Your task to perform on an android device: find which apps use the phone's location Image 0: 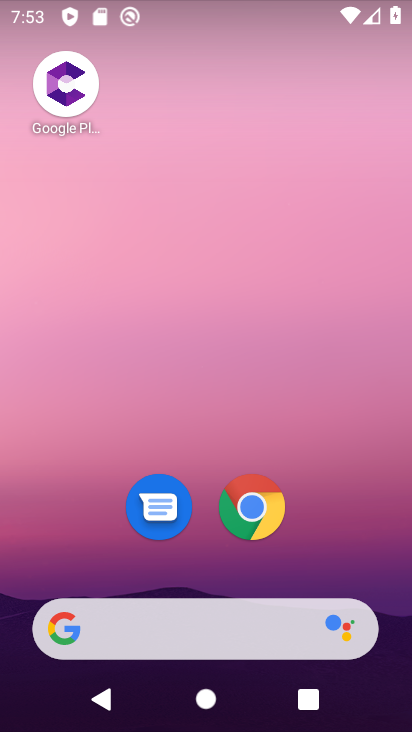
Step 0: drag from (213, 574) to (239, 5)
Your task to perform on an android device: find which apps use the phone's location Image 1: 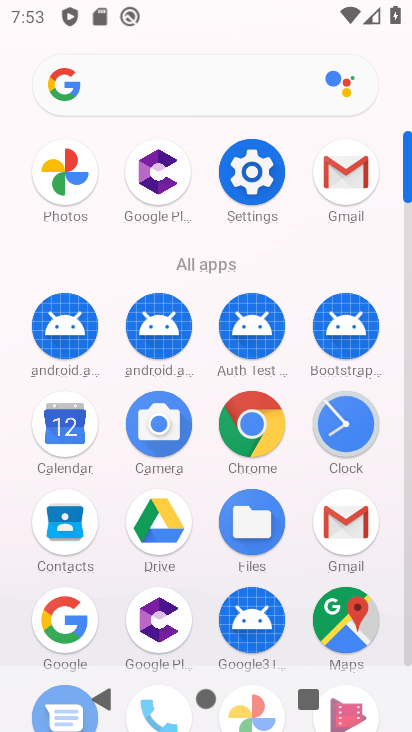
Step 1: click (239, 161)
Your task to perform on an android device: find which apps use the phone's location Image 2: 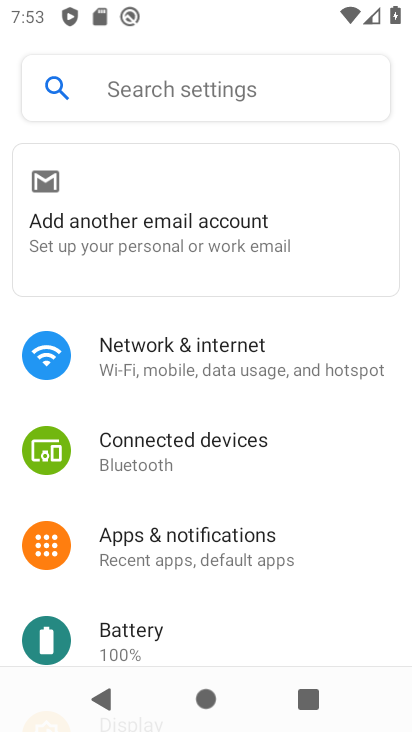
Step 2: drag from (178, 629) to (229, 273)
Your task to perform on an android device: find which apps use the phone's location Image 3: 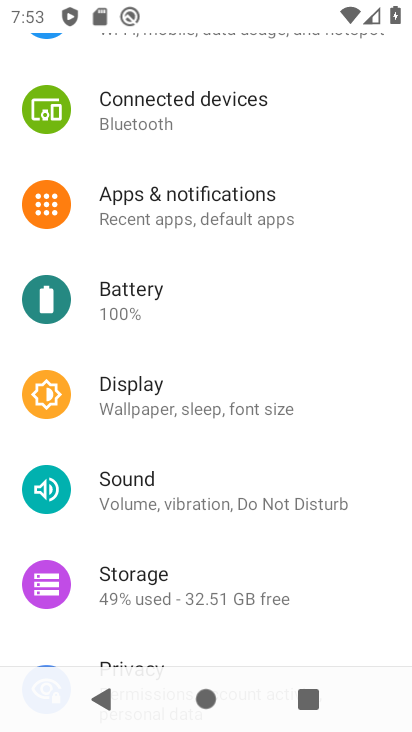
Step 3: drag from (213, 612) to (269, 232)
Your task to perform on an android device: find which apps use the phone's location Image 4: 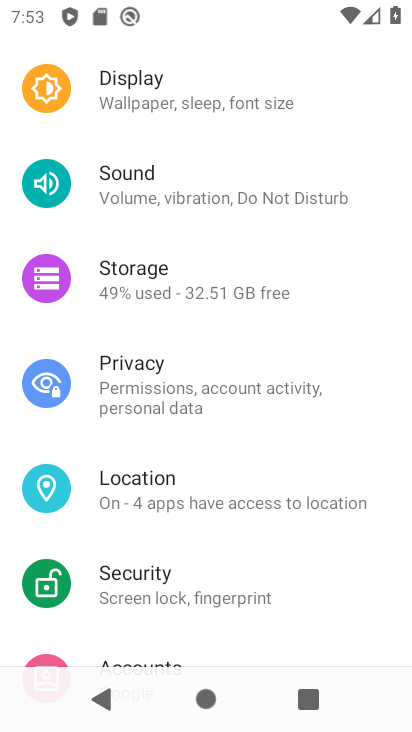
Step 4: click (229, 493)
Your task to perform on an android device: find which apps use the phone's location Image 5: 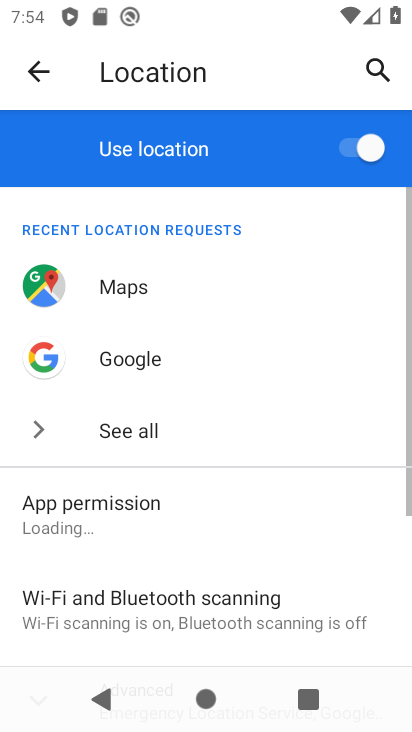
Step 5: click (184, 511)
Your task to perform on an android device: find which apps use the phone's location Image 6: 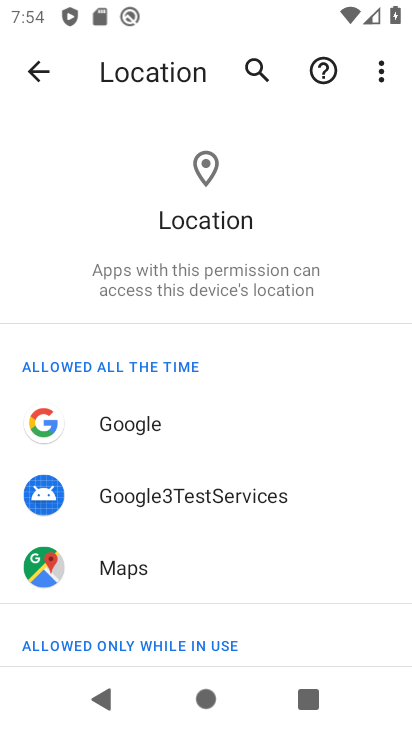
Step 6: task complete